Your task to perform on an android device: What's on my calendar today? Image 0: 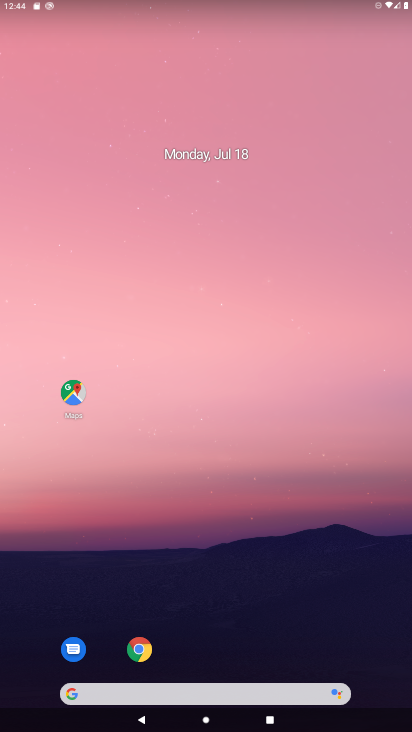
Step 0: drag from (20, 675) to (140, 79)
Your task to perform on an android device: What's on my calendar today? Image 1: 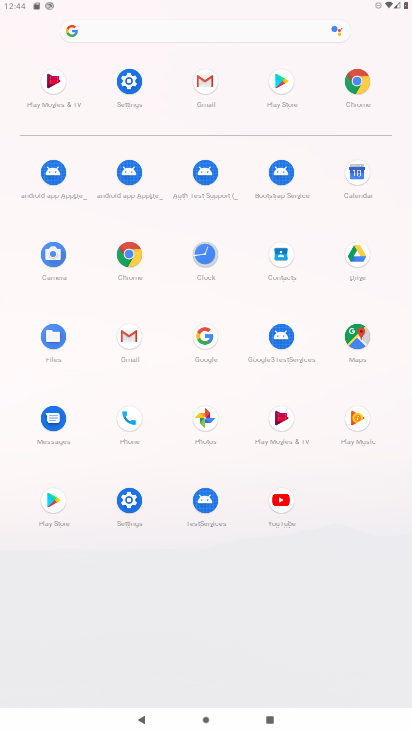
Step 1: click (356, 174)
Your task to perform on an android device: What's on my calendar today? Image 2: 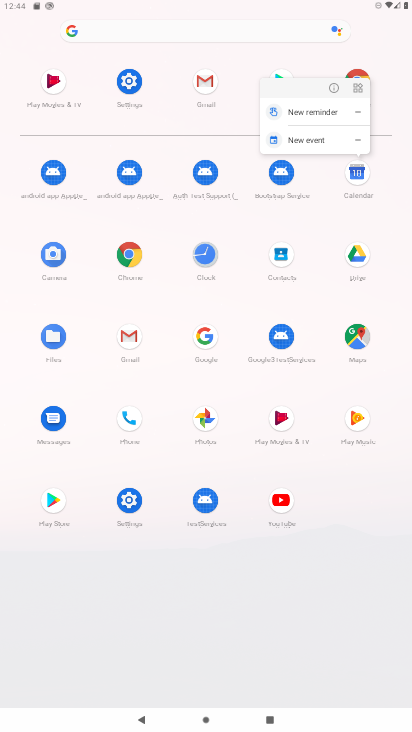
Step 2: click (390, 151)
Your task to perform on an android device: What's on my calendar today? Image 3: 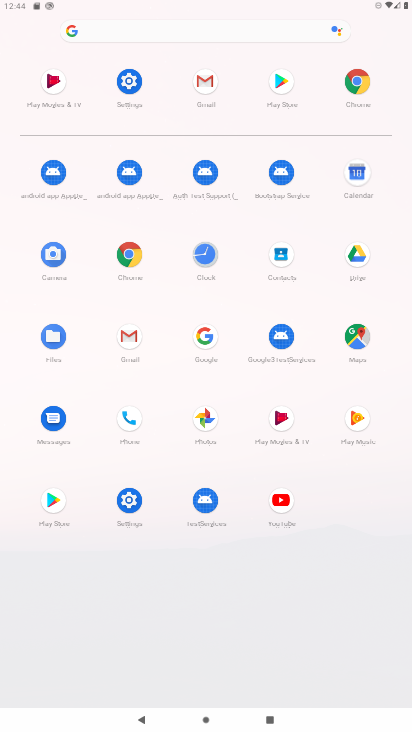
Step 3: click (364, 173)
Your task to perform on an android device: What's on my calendar today? Image 4: 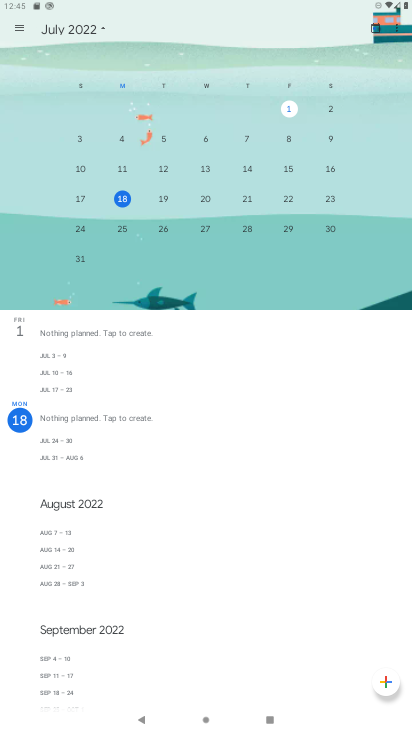
Step 4: task complete